Your task to perform on an android device: turn off notifications in google photos Image 0: 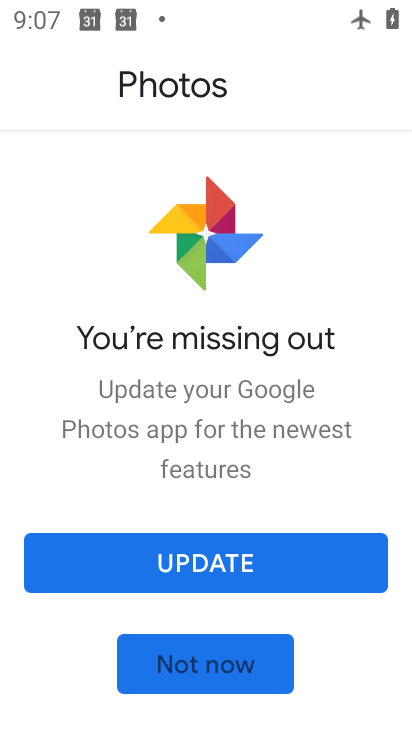
Step 0: press back button
Your task to perform on an android device: turn off notifications in google photos Image 1: 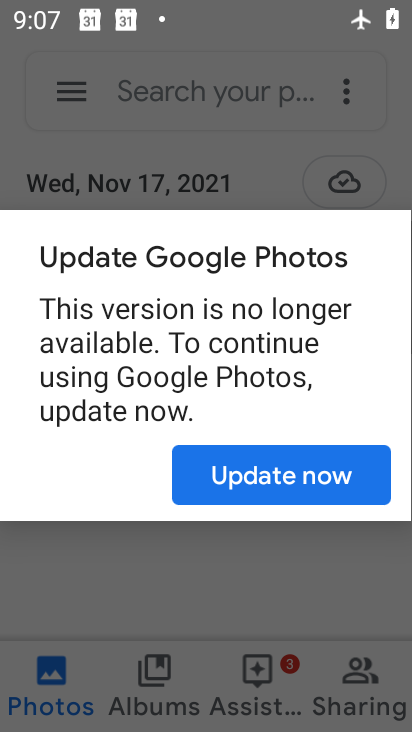
Step 1: press home button
Your task to perform on an android device: turn off notifications in google photos Image 2: 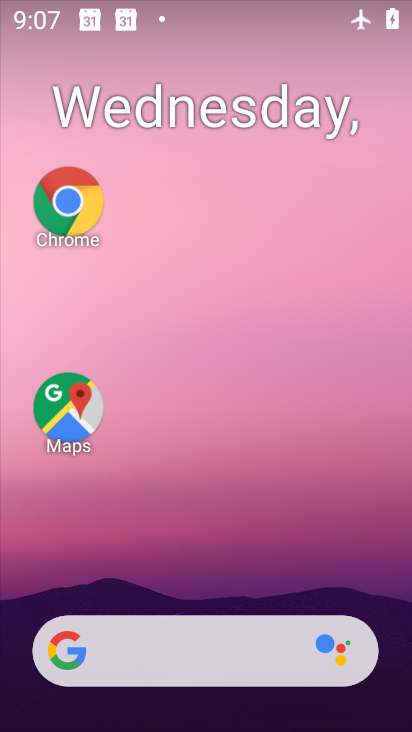
Step 2: drag from (211, 608) to (163, 35)
Your task to perform on an android device: turn off notifications in google photos Image 3: 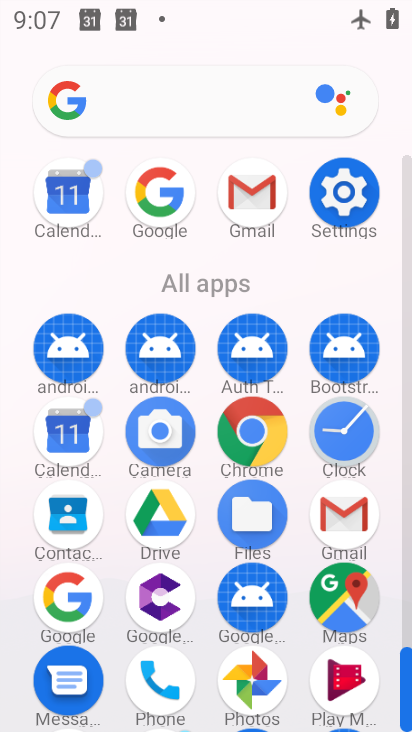
Step 3: click (225, 677)
Your task to perform on an android device: turn off notifications in google photos Image 4: 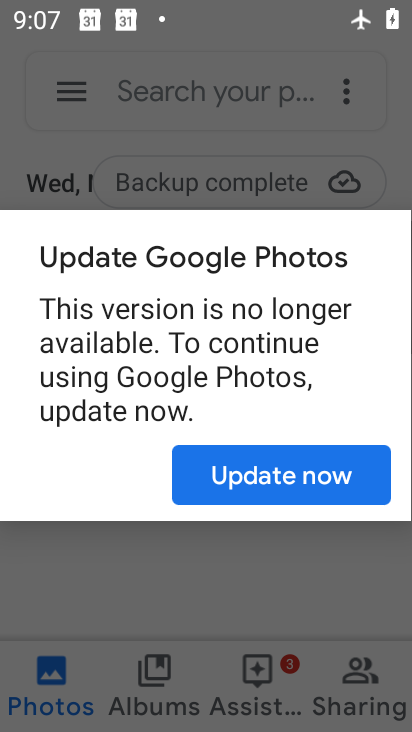
Step 4: click (321, 465)
Your task to perform on an android device: turn off notifications in google photos Image 5: 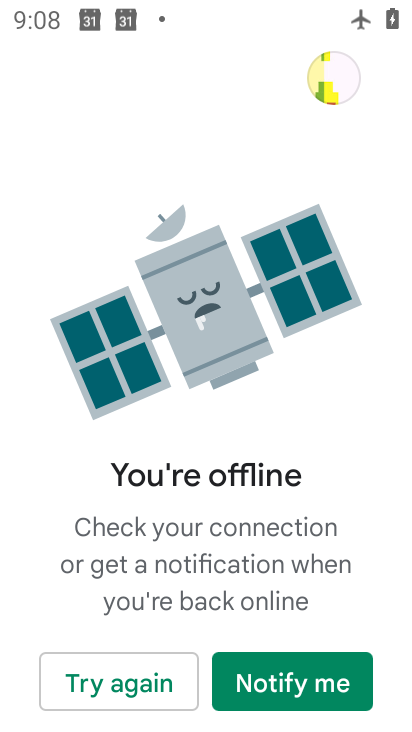
Step 5: click (250, 682)
Your task to perform on an android device: turn off notifications in google photos Image 6: 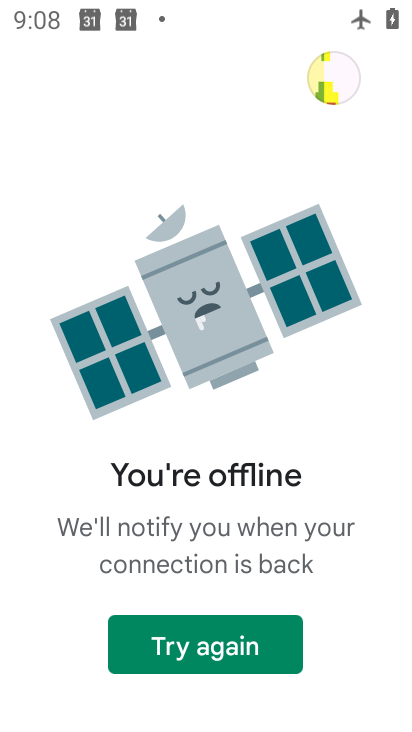
Step 6: press home button
Your task to perform on an android device: turn off notifications in google photos Image 7: 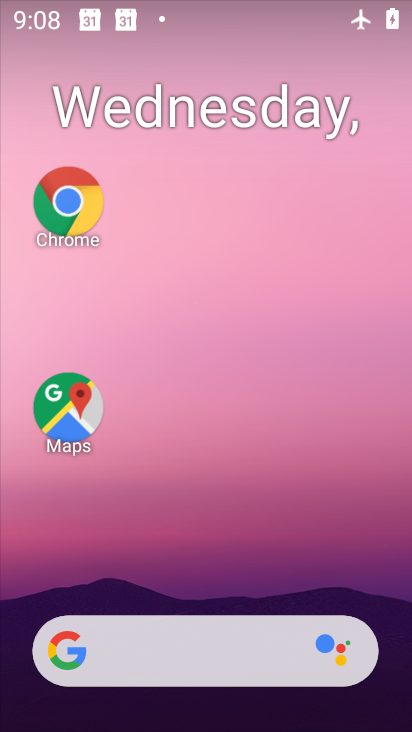
Step 7: drag from (208, 596) to (107, 63)
Your task to perform on an android device: turn off notifications in google photos Image 8: 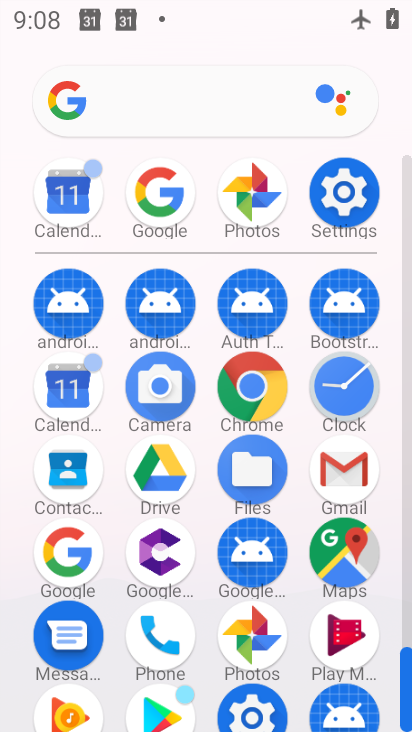
Step 8: click (250, 640)
Your task to perform on an android device: turn off notifications in google photos Image 9: 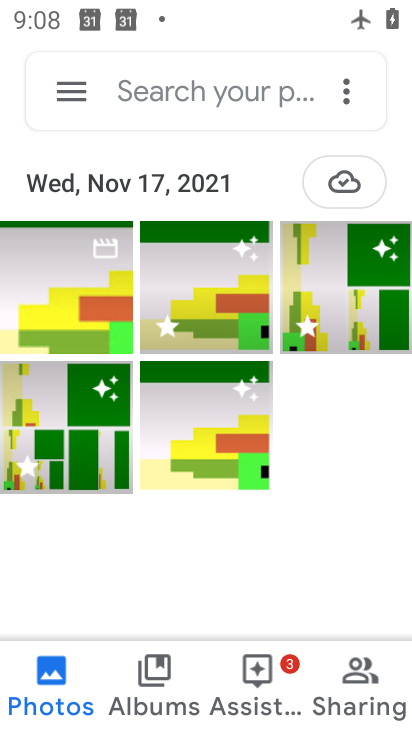
Step 9: click (79, 66)
Your task to perform on an android device: turn off notifications in google photos Image 10: 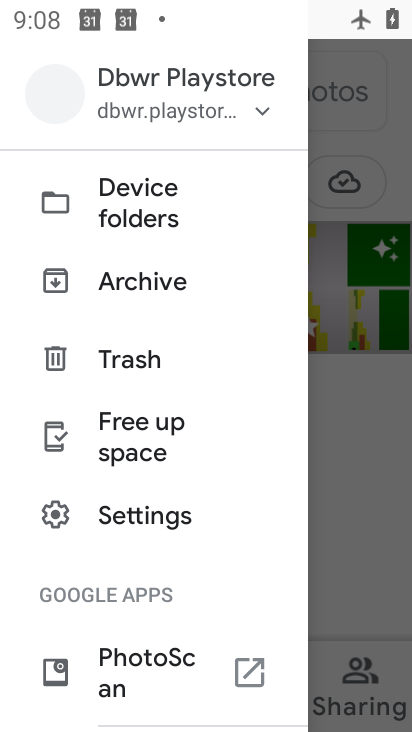
Step 10: click (108, 520)
Your task to perform on an android device: turn off notifications in google photos Image 11: 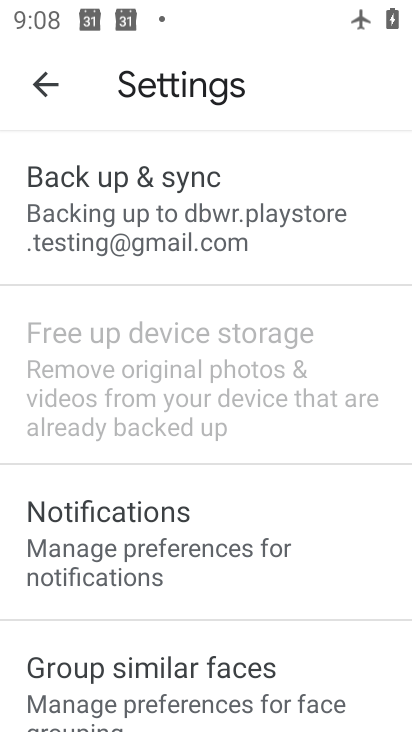
Step 11: click (182, 568)
Your task to perform on an android device: turn off notifications in google photos Image 12: 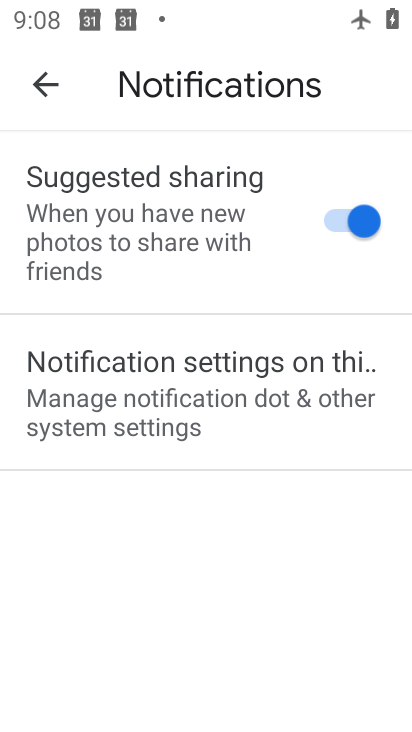
Step 12: click (225, 418)
Your task to perform on an android device: turn off notifications in google photos Image 13: 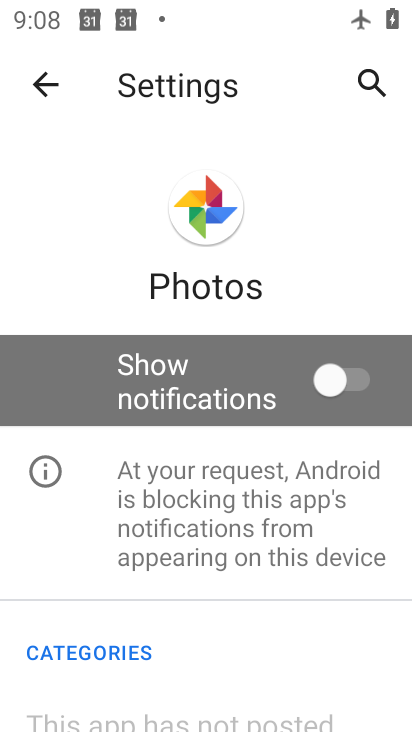
Step 13: task complete